Your task to perform on an android device: toggle pop-ups in chrome Image 0: 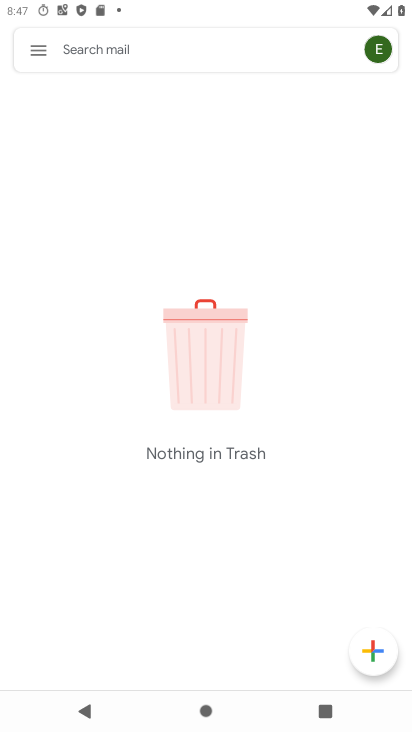
Step 0: press home button
Your task to perform on an android device: toggle pop-ups in chrome Image 1: 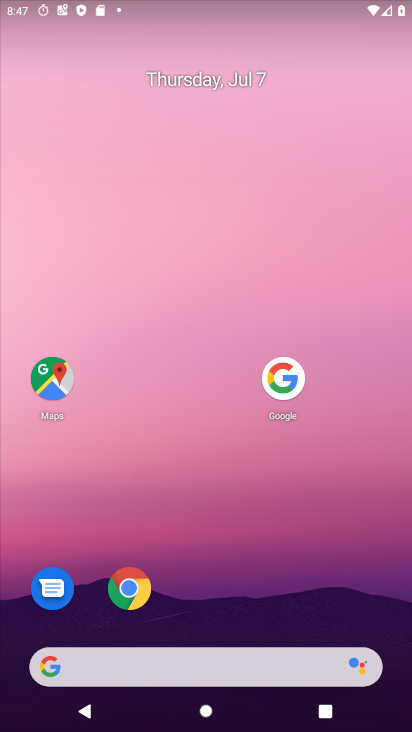
Step 1: click (130, 585)
Your task to perform on an android device: toggle pop-ups in chrome Image 2: 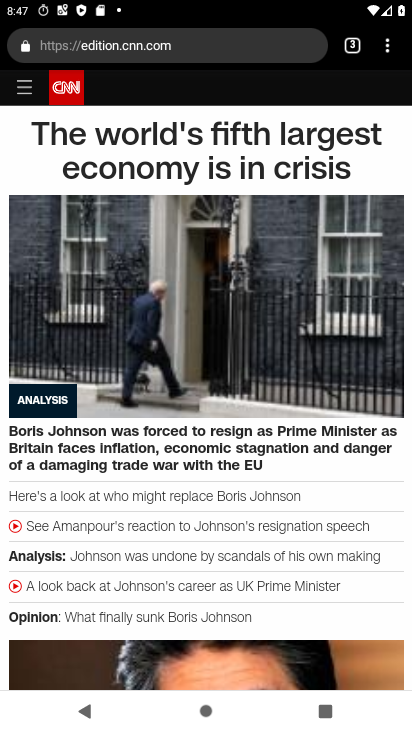
Step 2: drag from (387, 42) to (221, 511)
Your task to perform on an android device: toggle pop-ups in chrome Image 3: 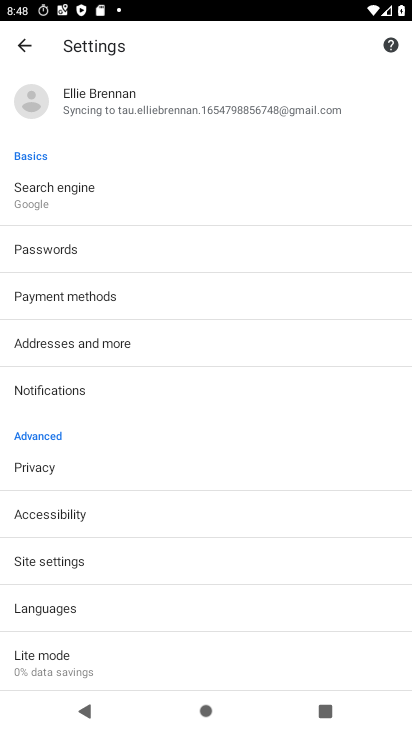
Step 3: click (107, 570)
Your task to perform on an android device: toggle pop-ups in chrome Image 4: 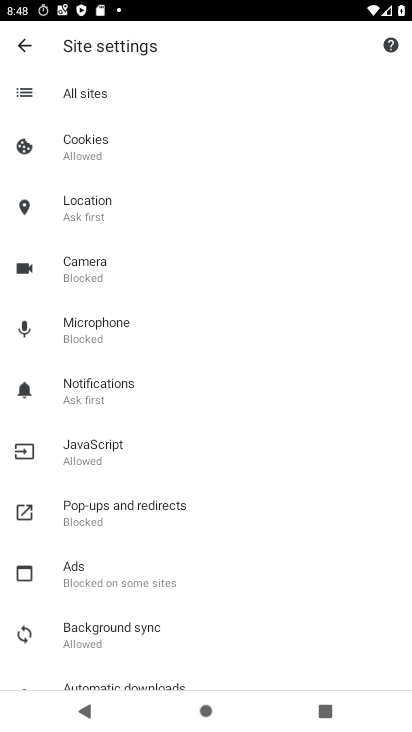
Step 4: click (144, 504)
Your task to perform on an android device: toggle pop-ups in chrome Image 5: 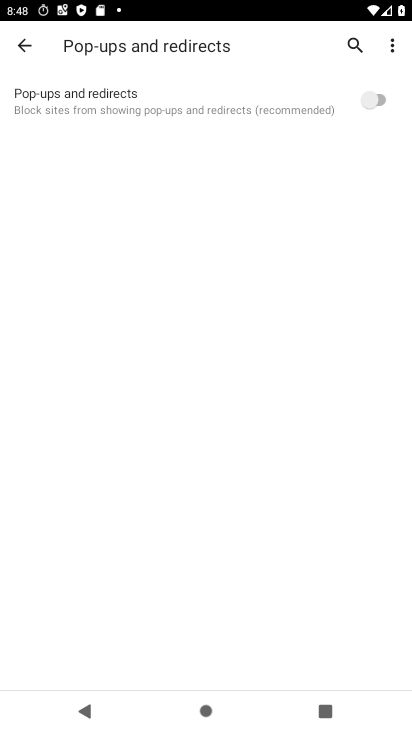
Step 5: click (383, 98)
Your task to perform on an android device: toggle pop-ups in chrome Image 6: 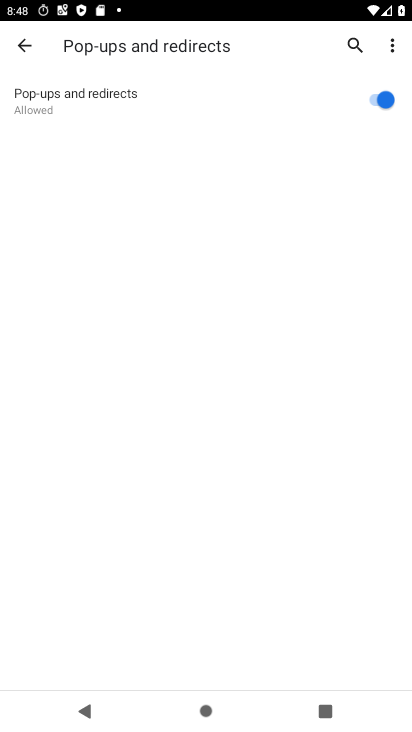
Step 6: task complete